Your task to perform on an android device: uninstall "Pandora - Music & Podcasts" Image 0: 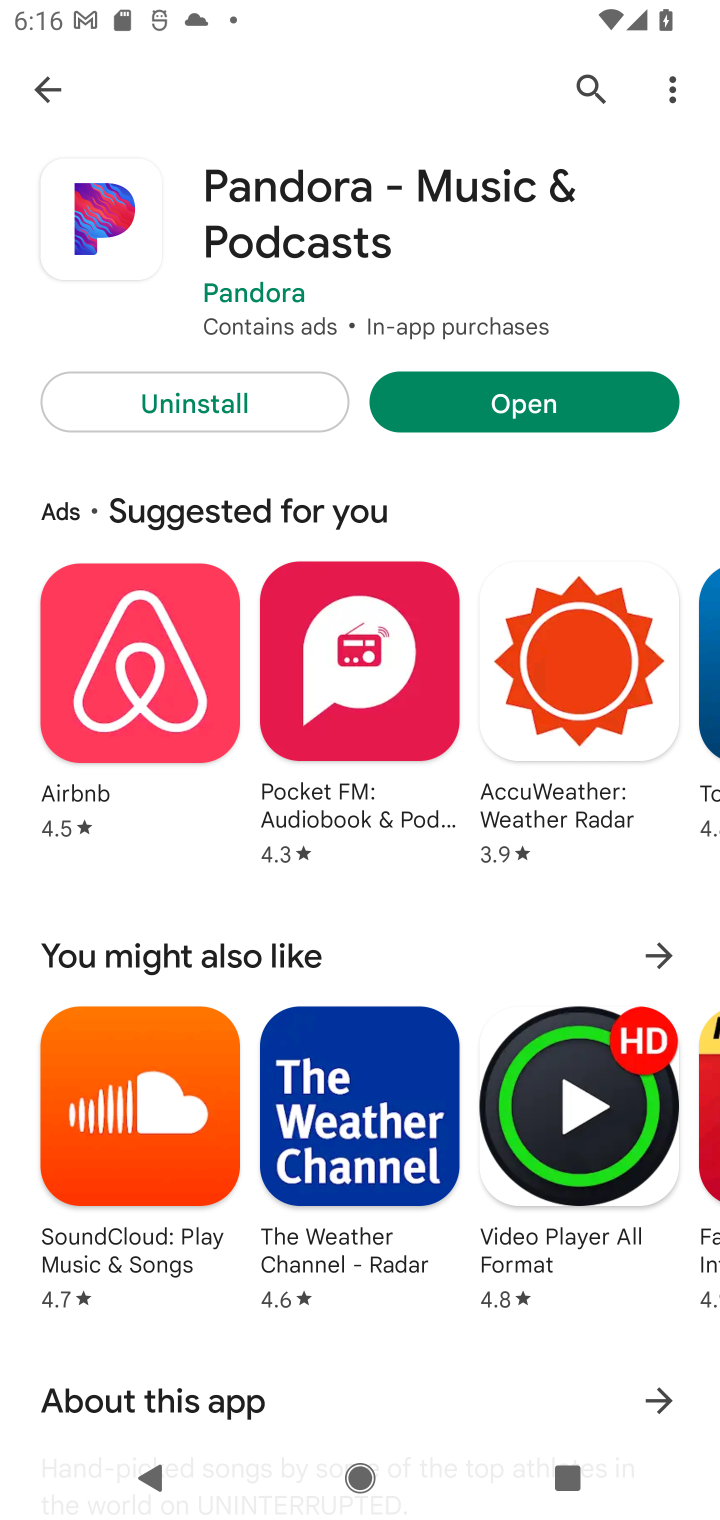
Step 0: press home button
Your task to perform on an android device: uninstall "Pandora - Music & Podcasts" Image 1: 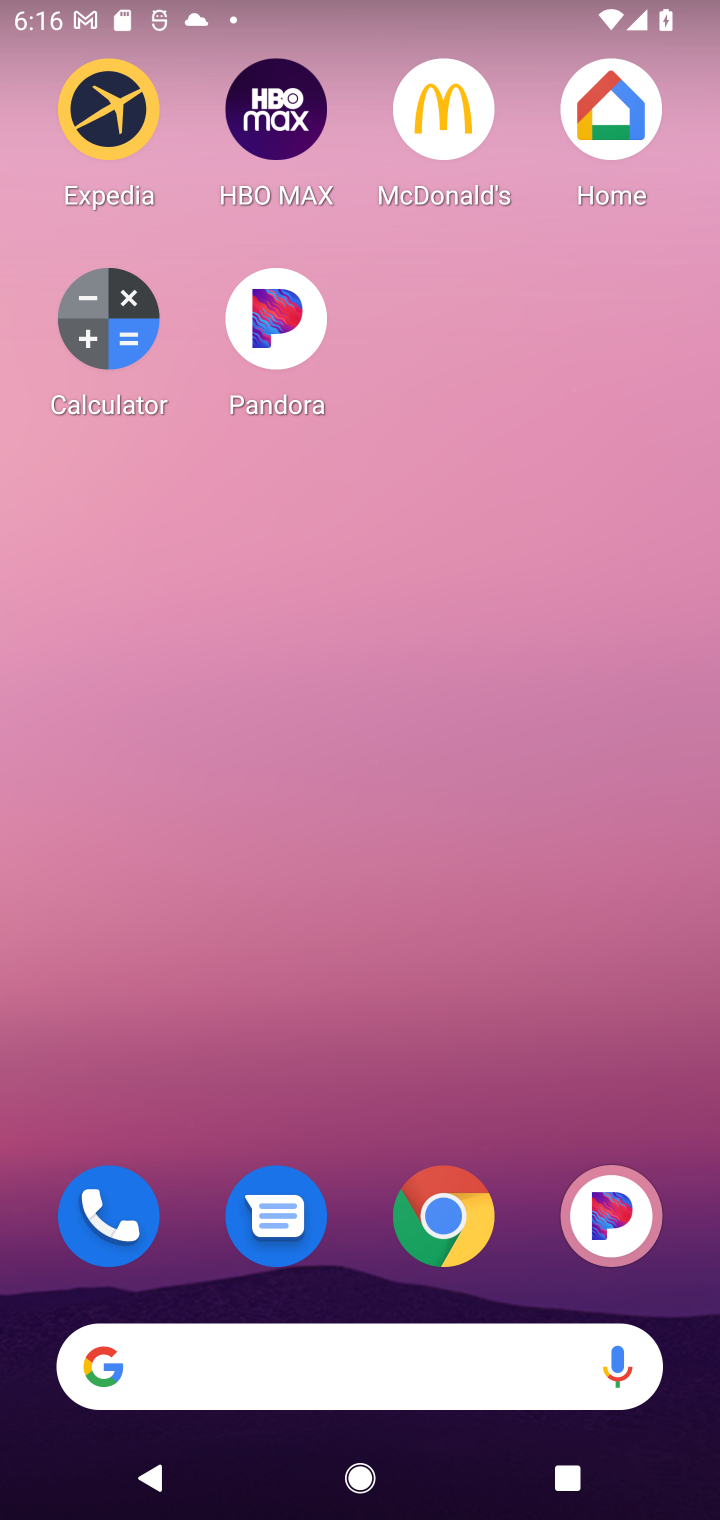
Step 1: drag from (298, 899) to (246, 246)
Your task to perform on an android device: uninstall "Pandora - Music & Podcasts" Image 2: 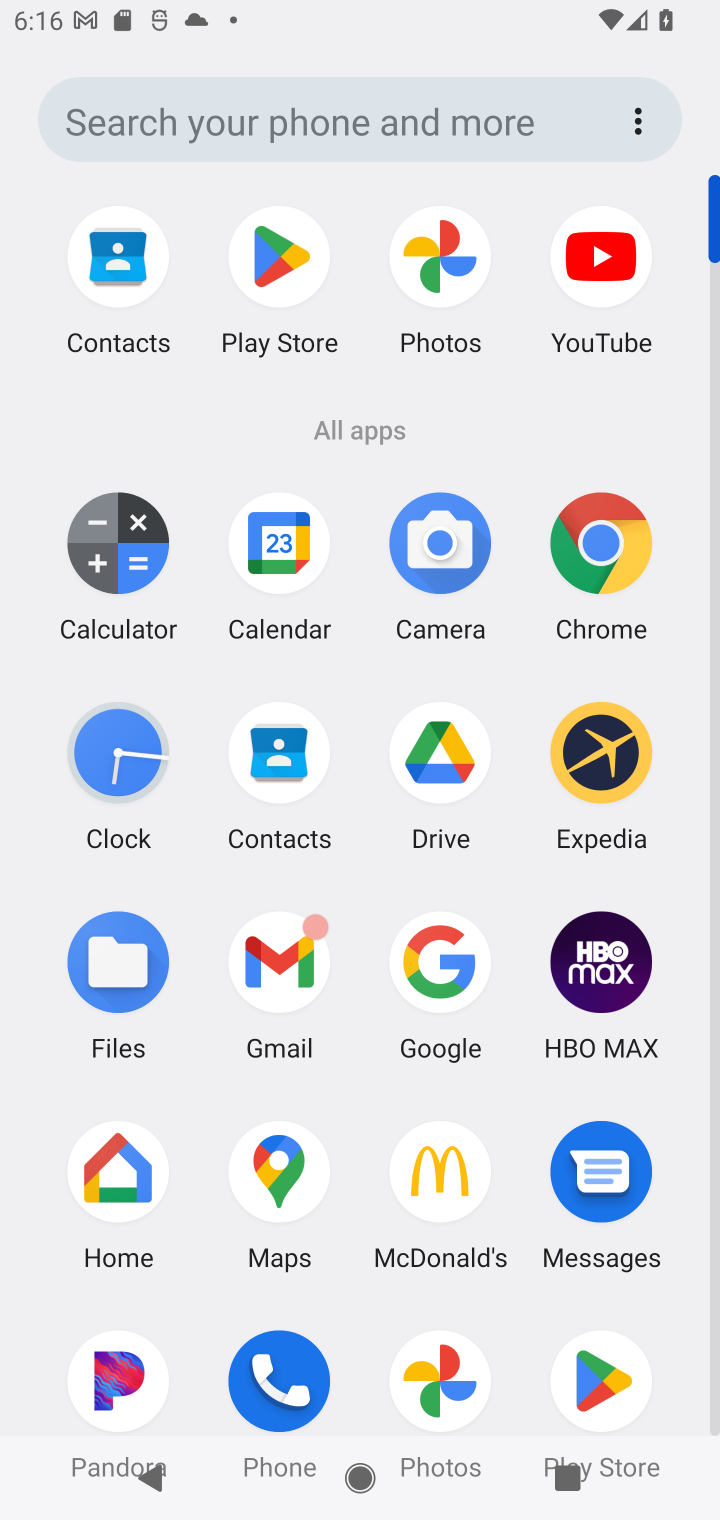
Step 2: click (593, 1404)
Your task to perform on an android device: uninstall "Pandora - Music & Podcasts" Image 3: 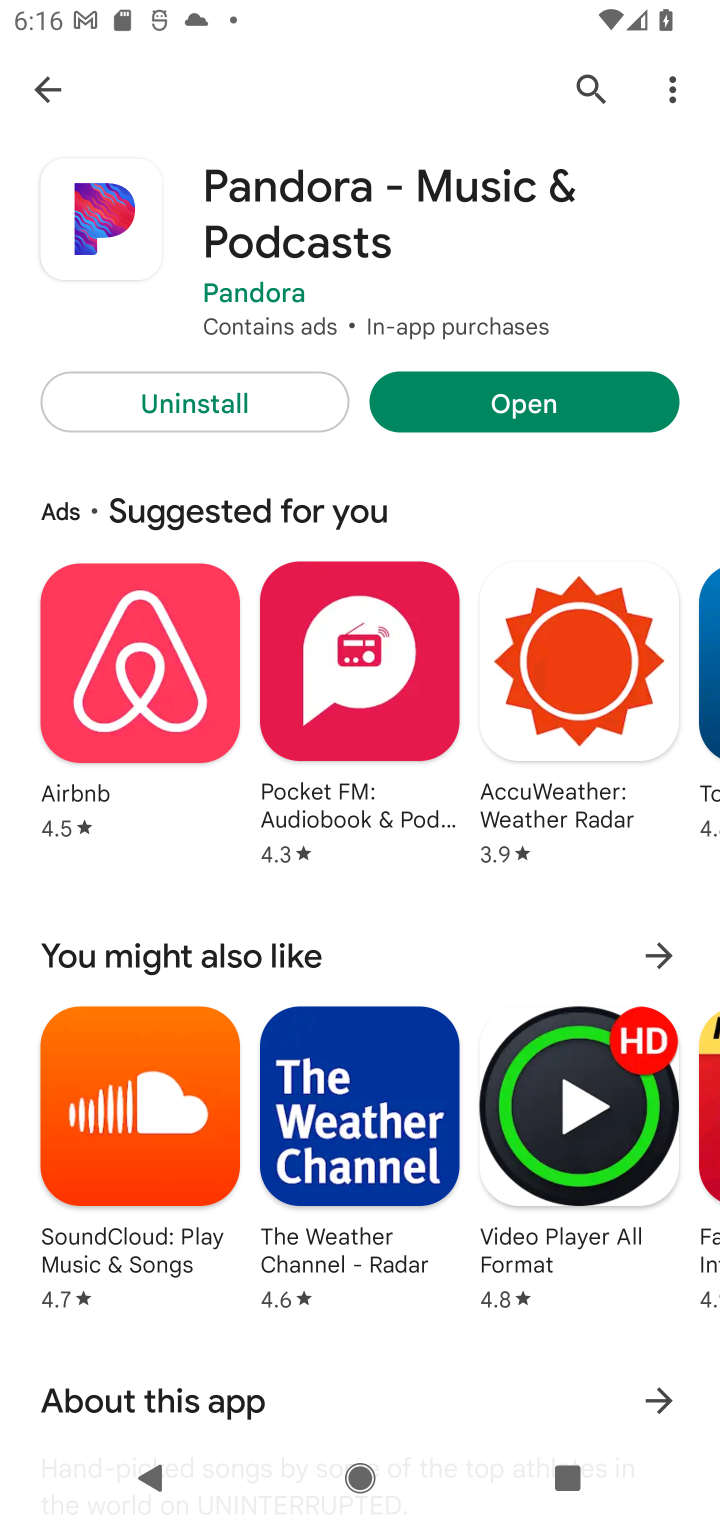
Step 3: click (212, 405)
Your task to perform on an android device: uninstall "Pandora - Music & Podcasts" Image 4: 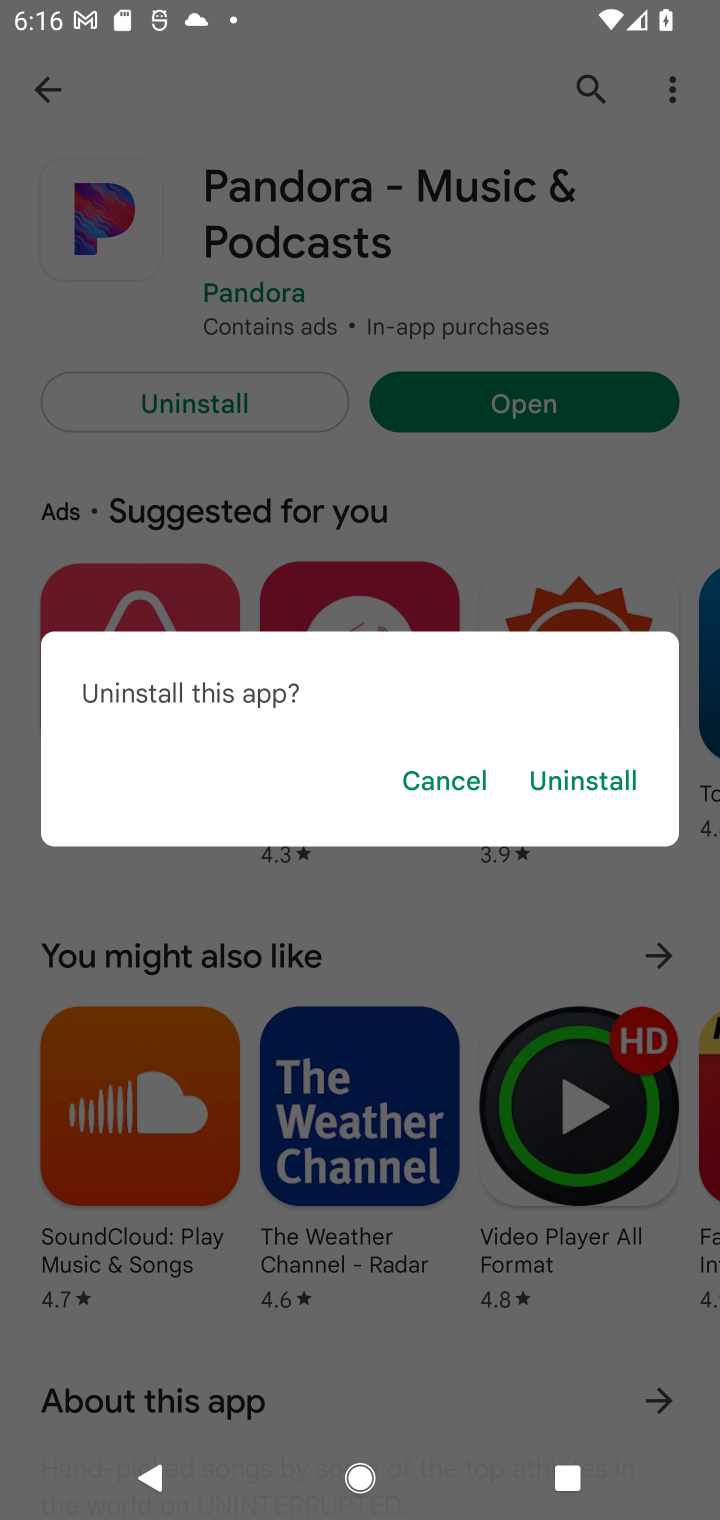
Step 4: click (579, 788)
Your task to perform on an android device: uninstall "Pandora - Music & Podcasts" Image 5: 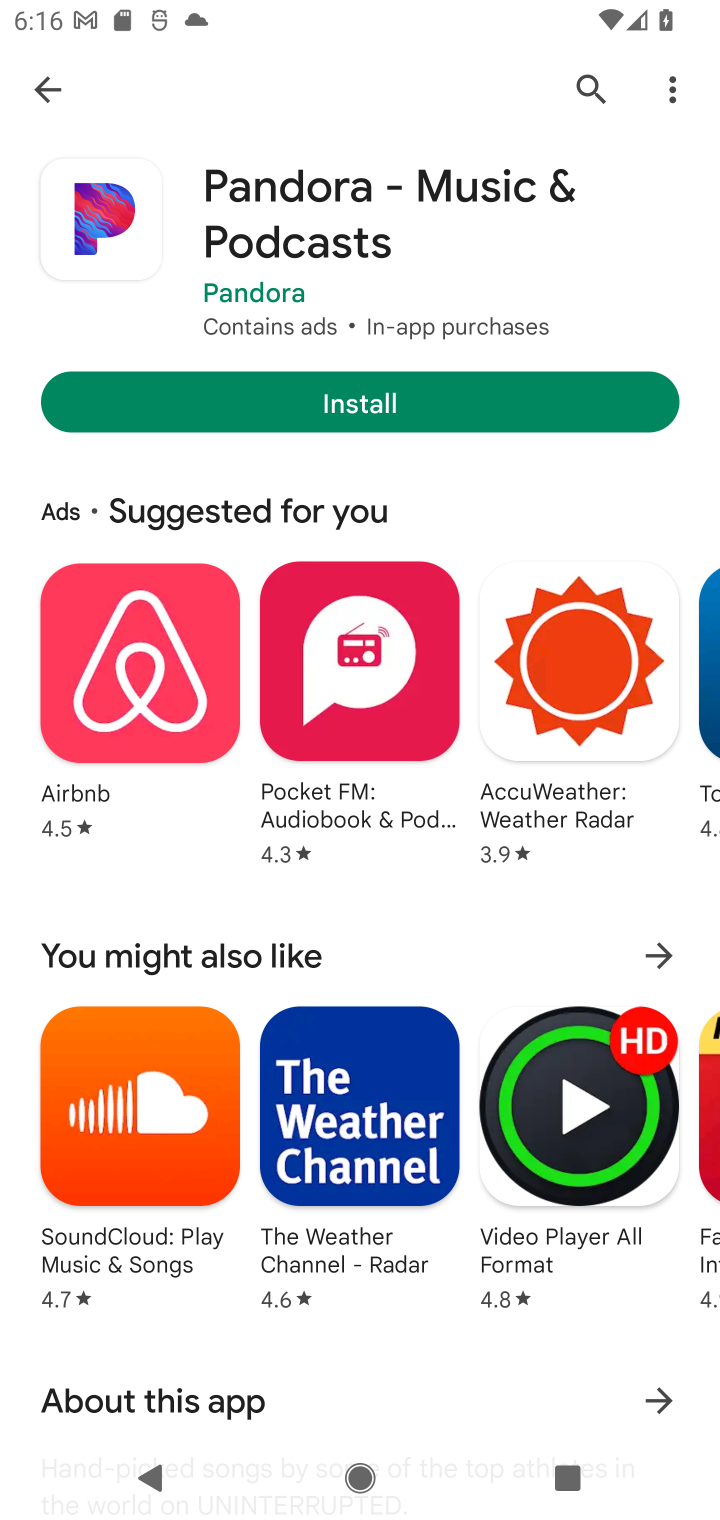
Step 5: task complete